Your task to perform on an android device: change the clock display to digital Image 0: 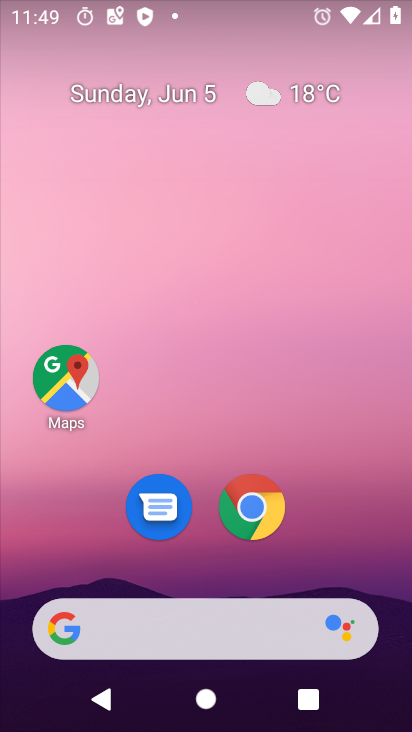
Step 0: drag from (246, 723) to (243, 14)
Your task to perform on an android device: change the clock display to digital Image 1: 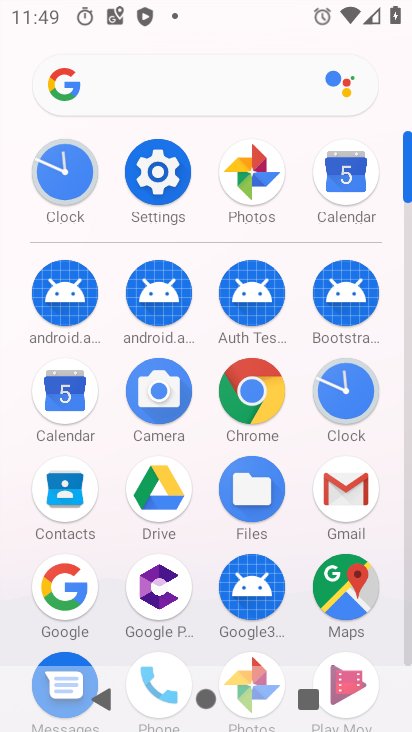
Step 1: click (351, 390)
Your task to perform on an android device: change the clock display to digital Image 2: 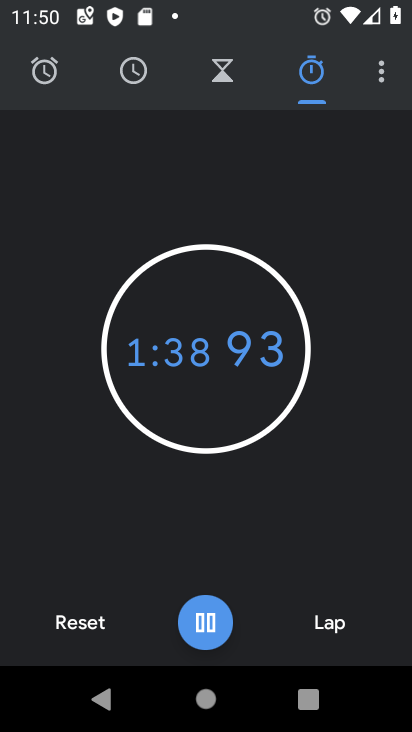
Step 2: click (385, 86)
Your task to perform on an android device: change the clock display to digital Image 3: 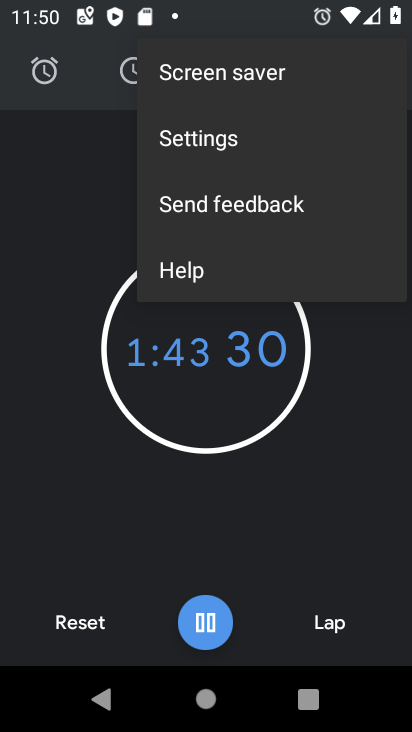
Step 3: click (219, 137)
Your task to perform on an android device: change the clock display to digital Image 4: 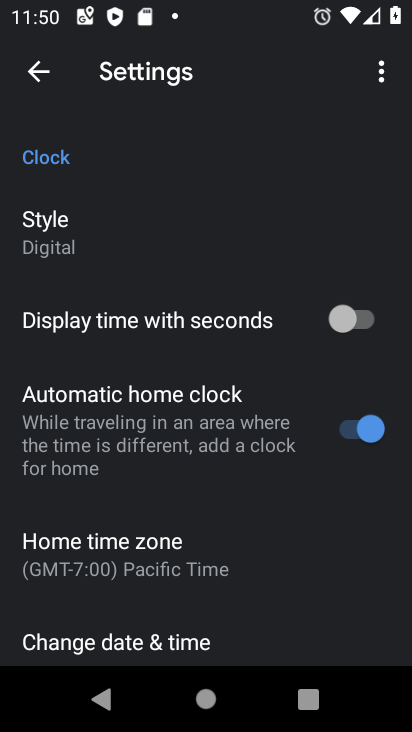
Step 4: task complete